Your task to perform on an android device: Open display settings Image 0: 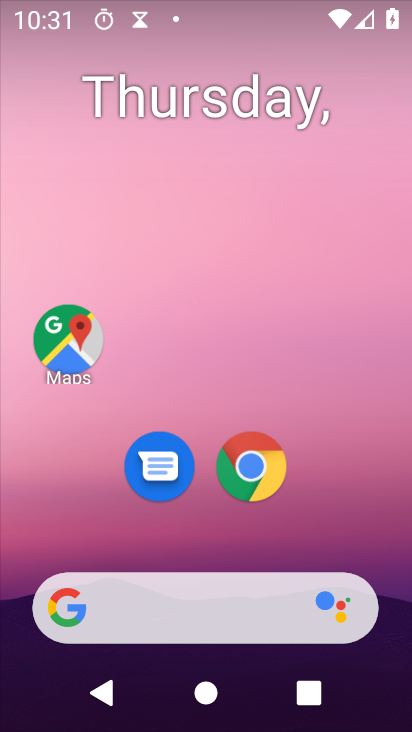
Step 0: drag from (205, 613) to (351, 158)
Your task to perform on an android device: Open display settings Image 1: 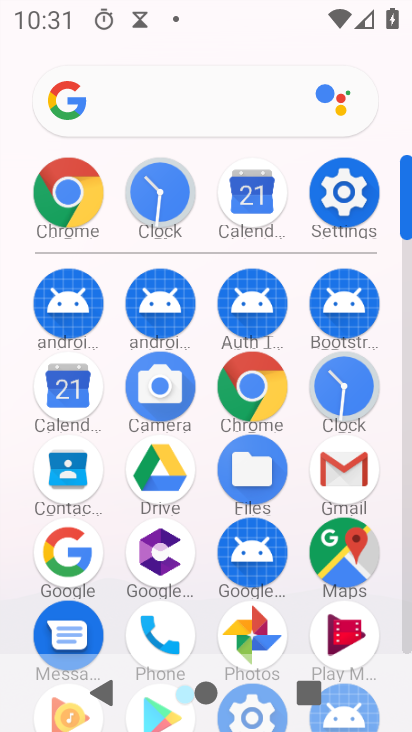
Step 1: click (336, 198)
Your task to perform on an android device: Open display settings Image 2: 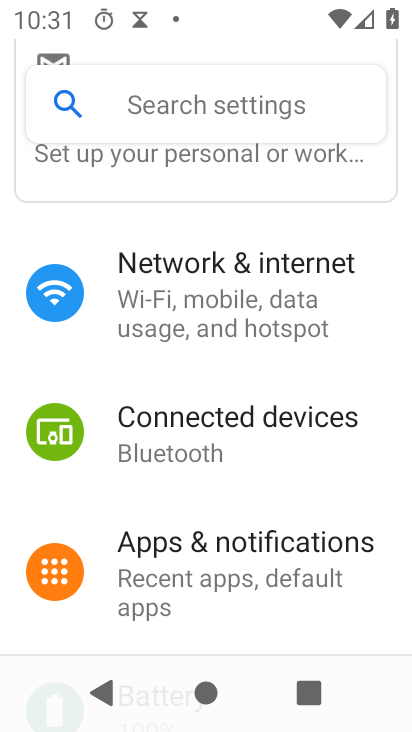
Step 2: drag from (194, 514) to (306, 232)
Your task to perform on an android device: Open display settings Image 3: 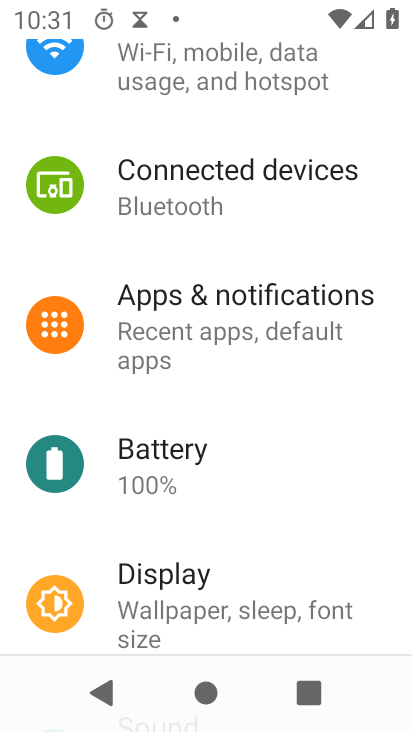
Step 3: click (166, 572)
Your task to perform on an android device: Open display settings Image 4: 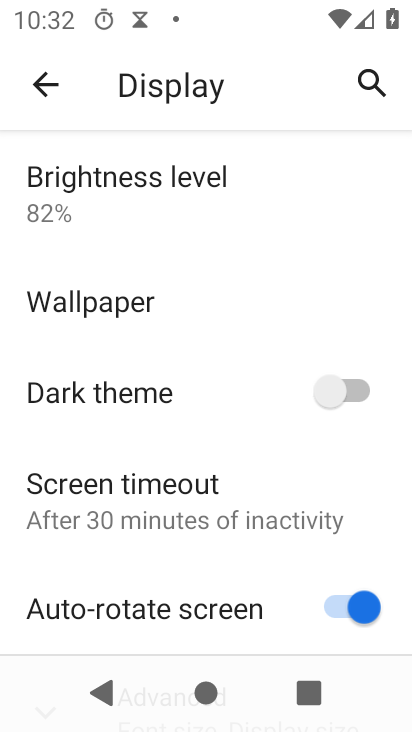
Step 4: task complete